Your task to perform on an android device: Show me productivity apps on the Play Store Image 0: 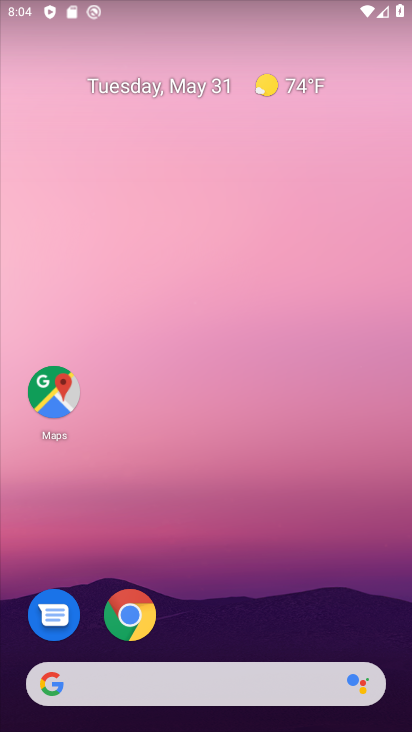
Step 0: drag from (194, 639) to (202, 231)
Your task to perform on an android device: Show me productivity apps on the Play Store Image 1: 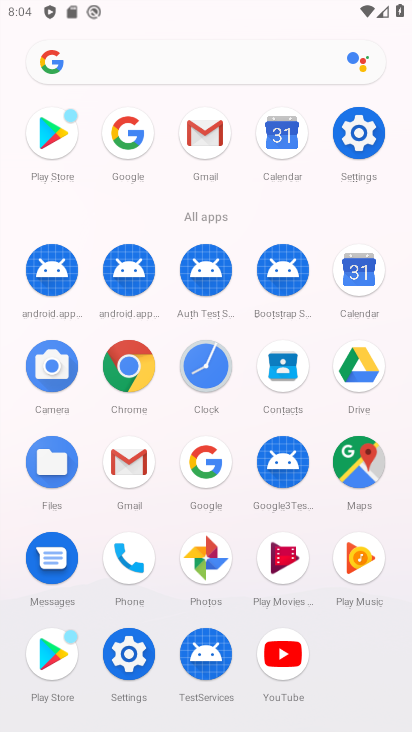
Step 1: click (58, 153)
Your task to perform on an android device: Show me productivity apps on the Play Store Image 2: 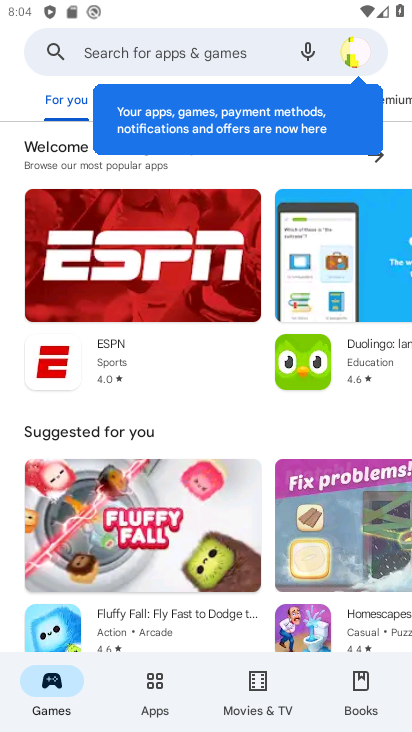
Step 2: click (154, 689)
Your task to perform on an android device: Show me productivity apps on the Play Store Image 3: 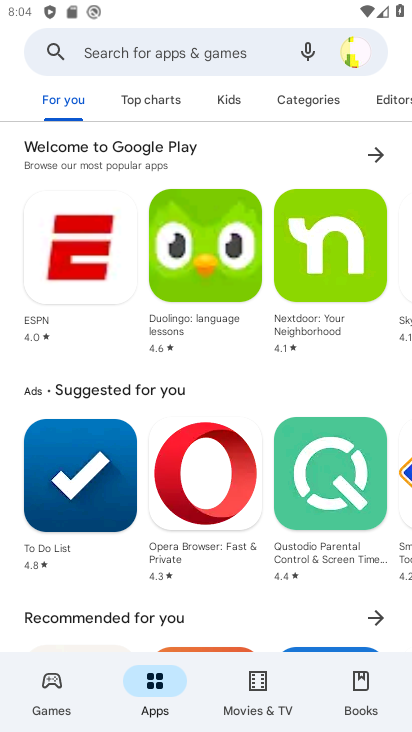
Step 3: drag from (325, 107) to (196, 112)
Your task to perform on an android device: Show me productivity apps on the Play Store Image 4: 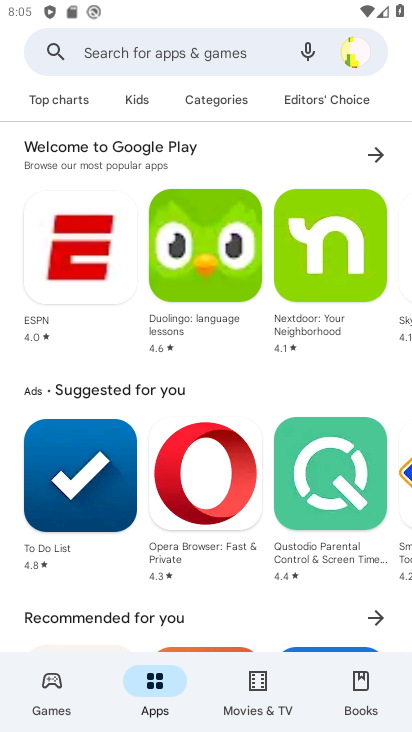
Step 4: drag from (279, 106) to (72, 108)
Your task to perform on an android device: Show me productivity apps on the Play Store Image 5: 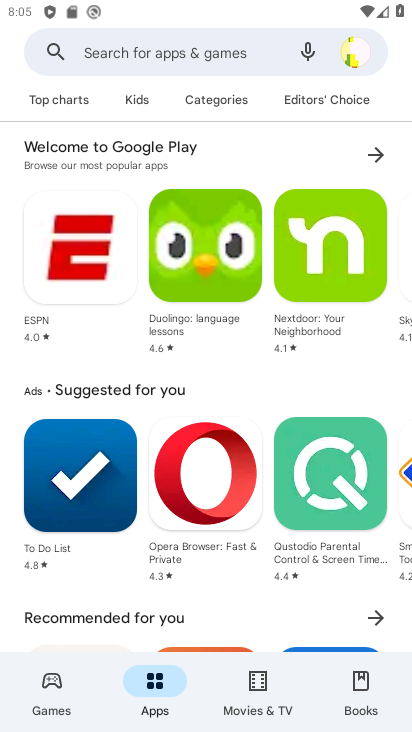
Step 5: drag from (352, 94) to (61, 95)
Your task to perform on an android device: Show me productivity apps on the Play Store Image 6: 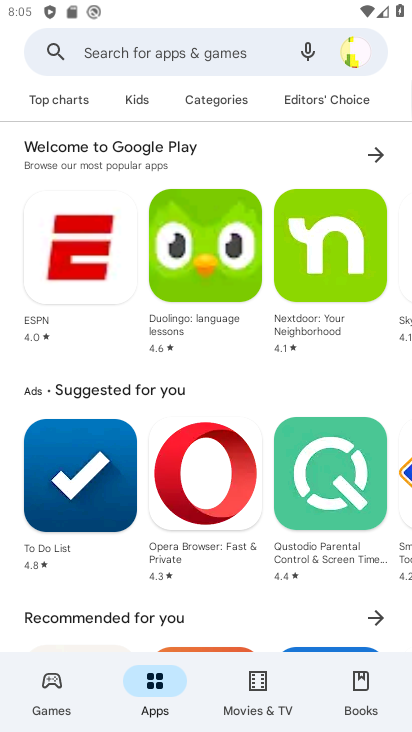
Step 6: drag from (149, 98) to (320, 103)
Your task to perform on an android device: Show me productivity apps on the Play Store Image 7: 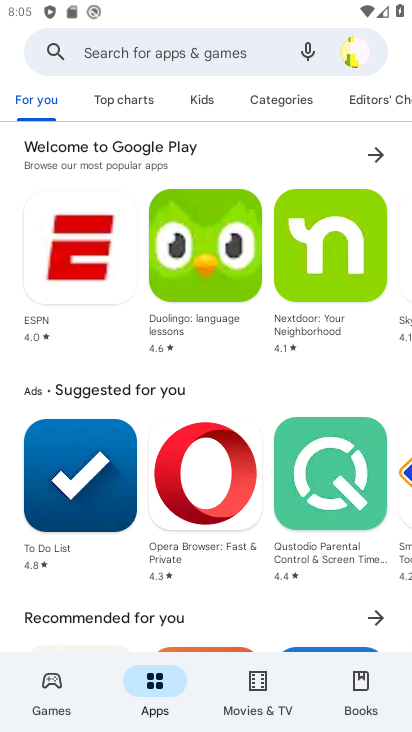
Step 7: click (301, 97)
Your task to perform on an android device: Show me productivity apps on the Play Store Image 8: 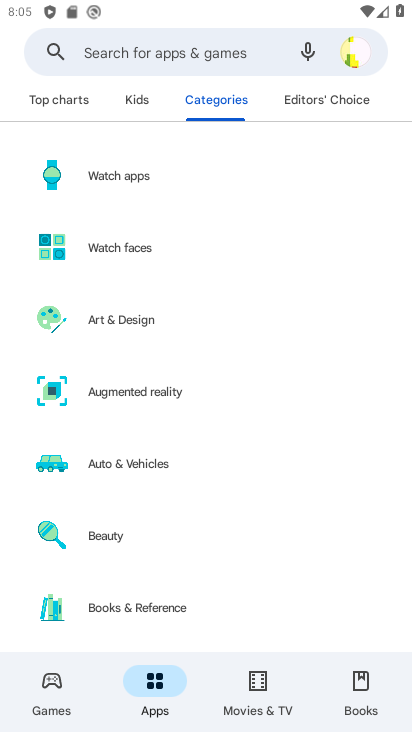
Step 8: drag from (179, 606) to (235, 301)
Your task to perform on an android device: Show me productivity apps on the Play Store Image 9: 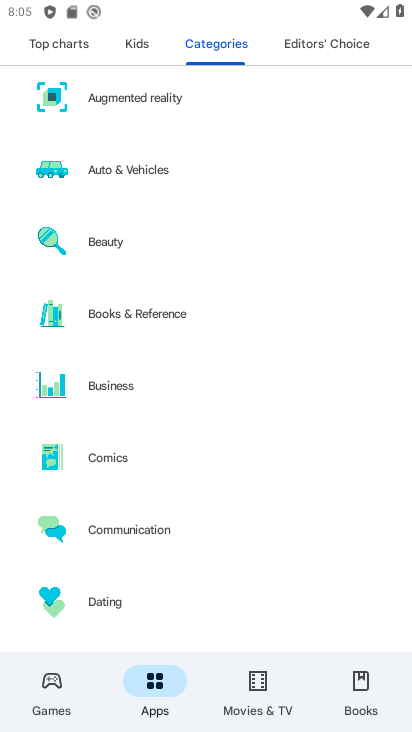
Step 9: drag from (197, 580) to (231, 197)
Your task to perform on an android device: Show me productivity apps on the Play Store Image 10: 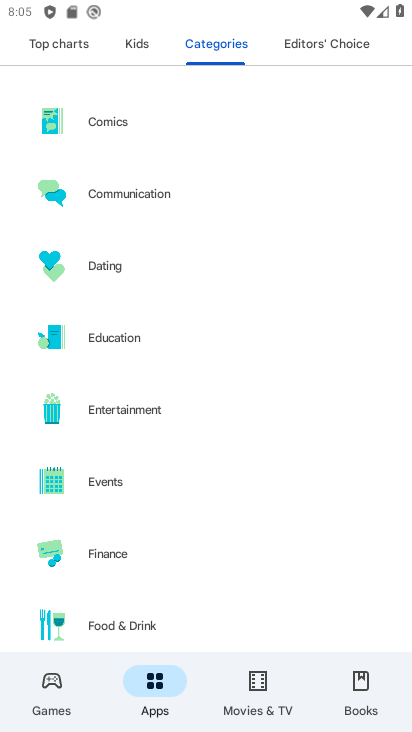
Step 10: drag from (192, 623) to (243, 245)
Your task to perform on an android device: Show me productivity apps on the Play Store Image 11: 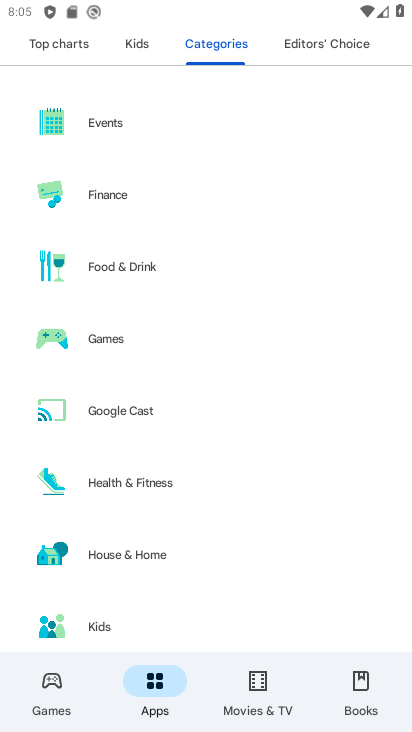
Step 11: drag from (202, 580) to (241, 175)
Your task to perform on an android device: Show me productivity apps on the Play Store Image 12: 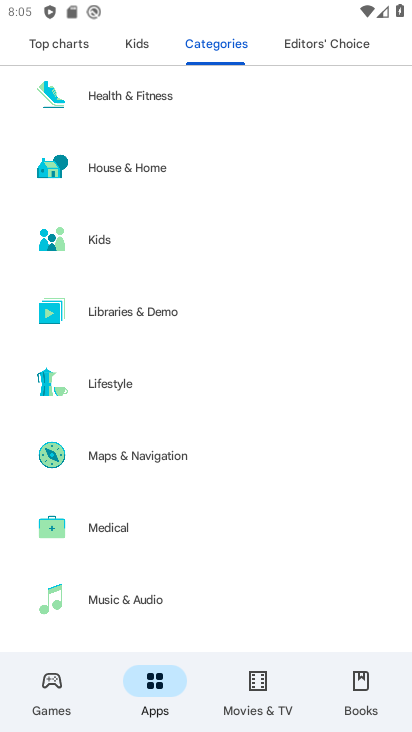
Step 12: drag from (206, 560) to (252, 211)
Your task to perform on an android device: Show me productivity apps on the Play Store Image 13: 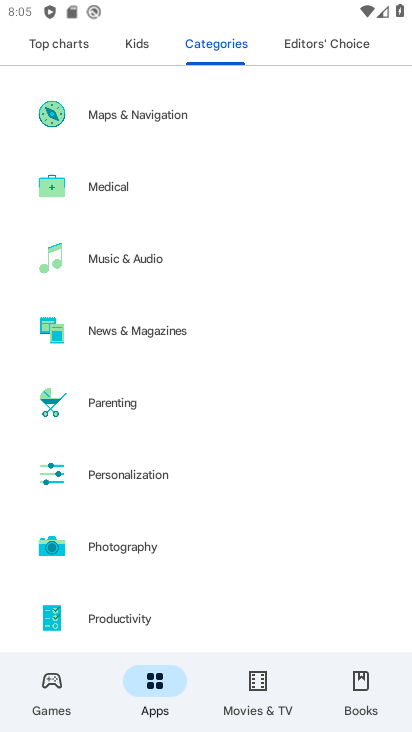
Step 13: click (138, 614)
Your task to perform on an android device: Show me productivity apps on the Play Store Image 14: 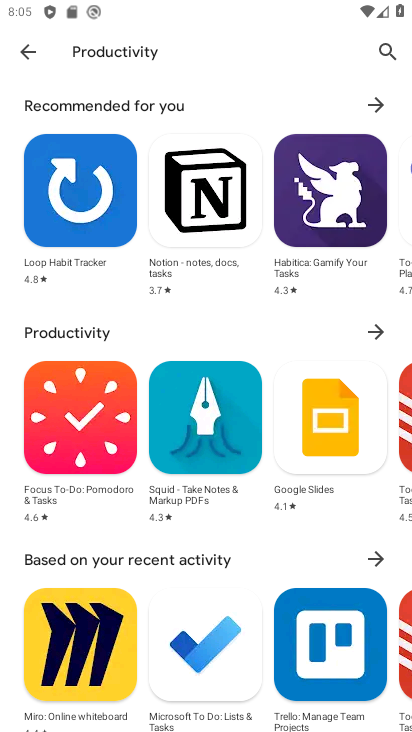
Step 14: task complete